Your task to perform on an android device: refresh tabs in the chrome app Image 0: 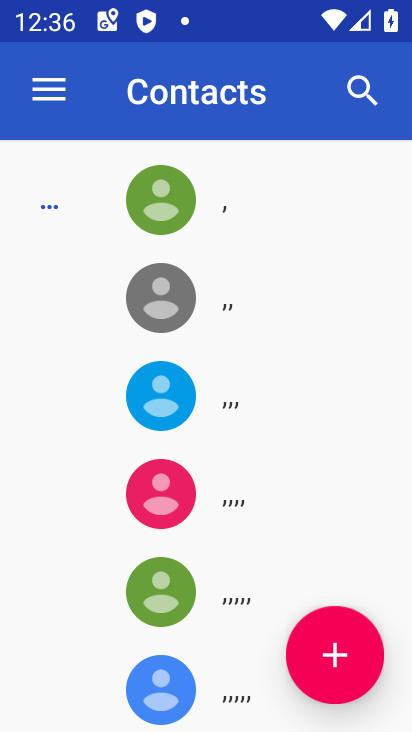
Step 0: press home button
Your task to perform on an android device: refresh tabs in the chrome app Image 1: 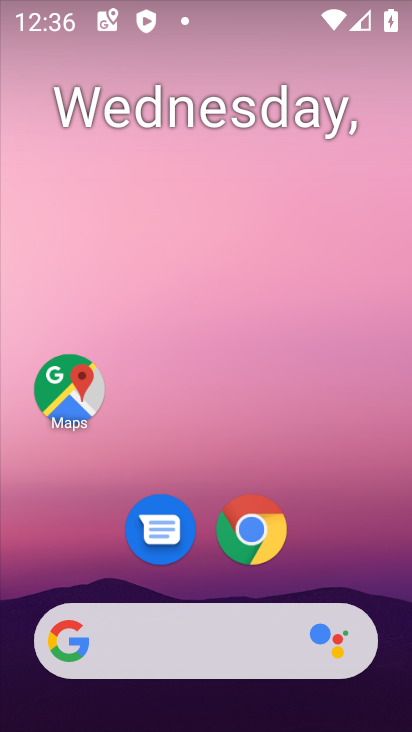
Step 1: click (257, 524)
Your task to perform on an android device: refresh tabs in the chrome app Image 2: 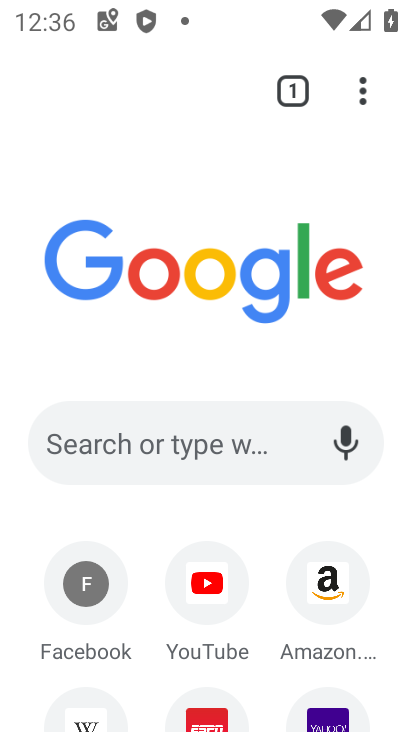
Step 2: click (363, 104)
Your task to perform on an android device: refresh tabs in the chrome app Image 3: 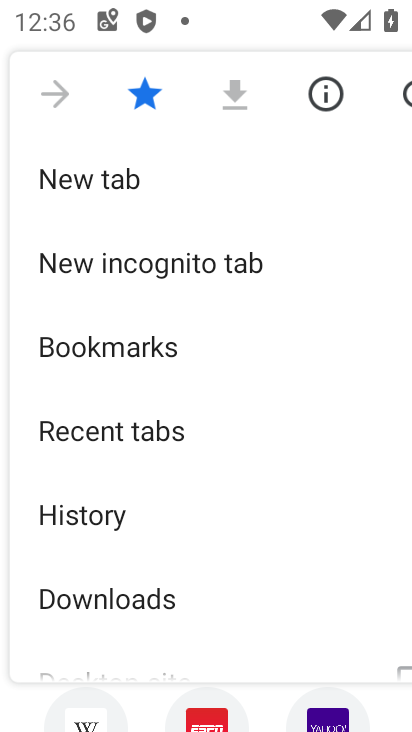
Step 3: drag from (376, 95) to (204, 101)
Your task to perform on an android device: refresh tabs in the chrome app Image 4: 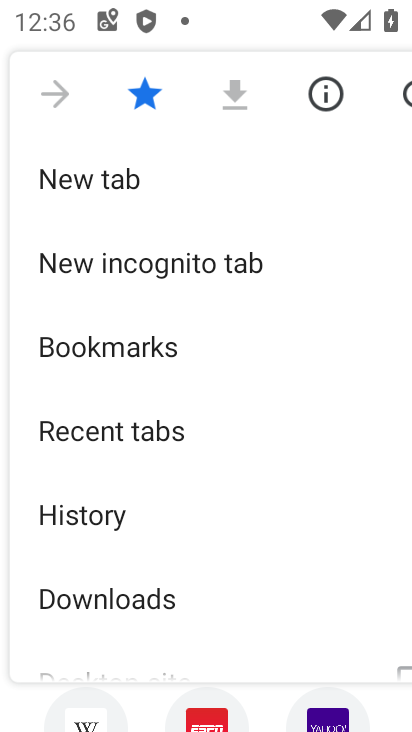
Step 4: click (405, 93)
Your task to perform on an android device: refresh tabs in the chrome app Image 5: 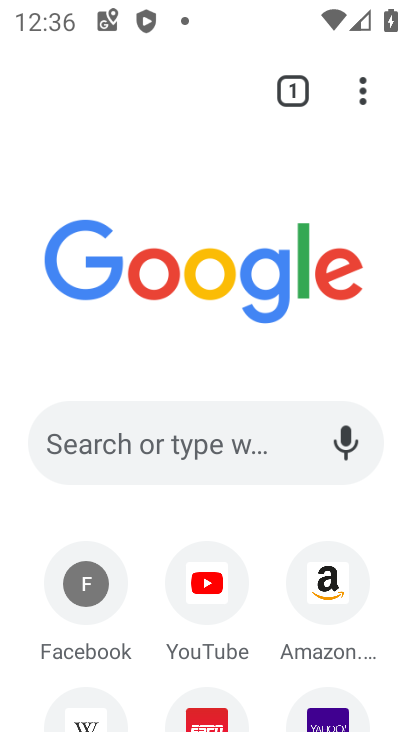
Step 5: task complete